Your task to perform on an android device: change the clock display to show seconds Image 0: 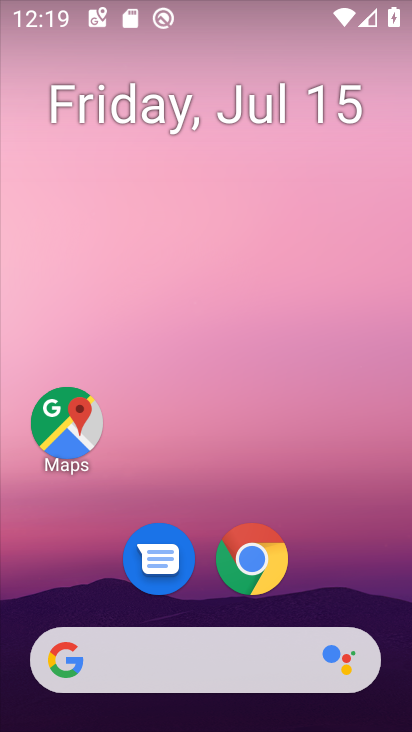
Step 0: drag from (347, 564) to (384, 161)
Your task to perform on an android device: change the clock display to show seconds Image 1: 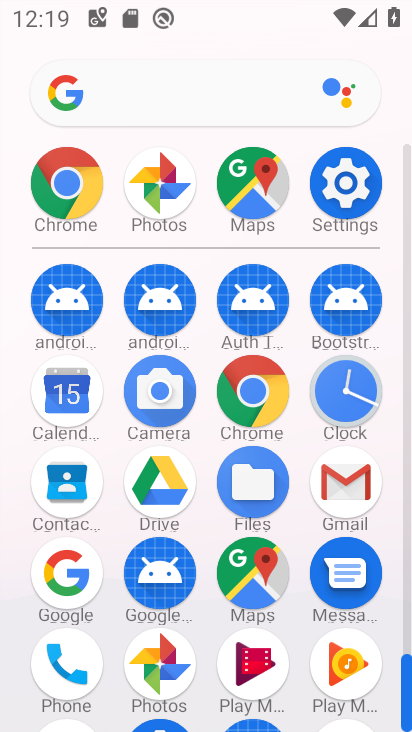
Step 1: click (344, 398)
Your task to perform on an android device: change the clock display to show seconds Image 2: 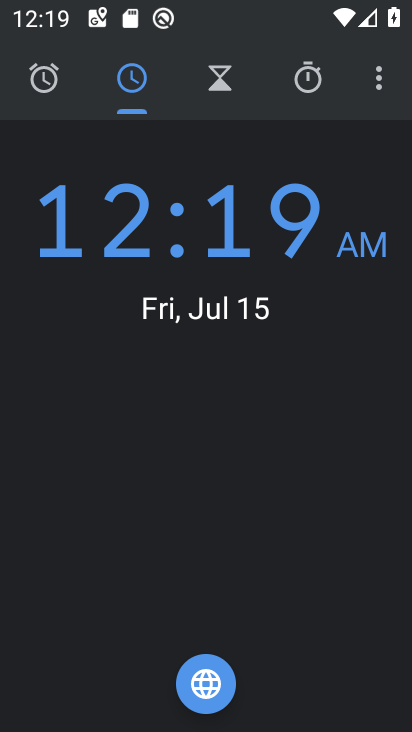
Step 2: click (378, 92)
Your task to perform on an android device: change the clock display to show seconds Image 3: 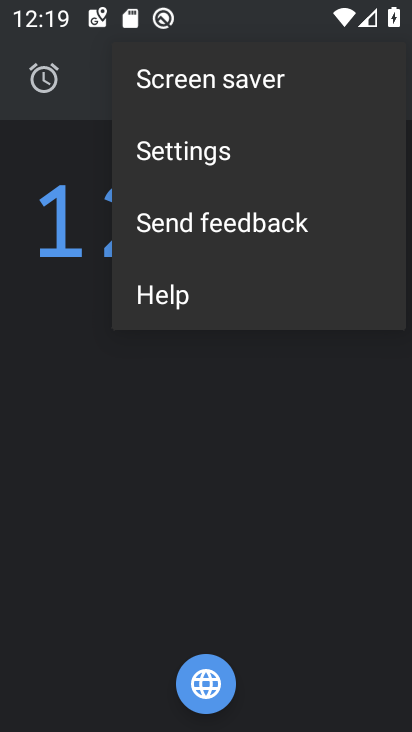
Step 3: click (302, 156)
Your task to perform on an android device: change the clock display to show seconds Image 4: 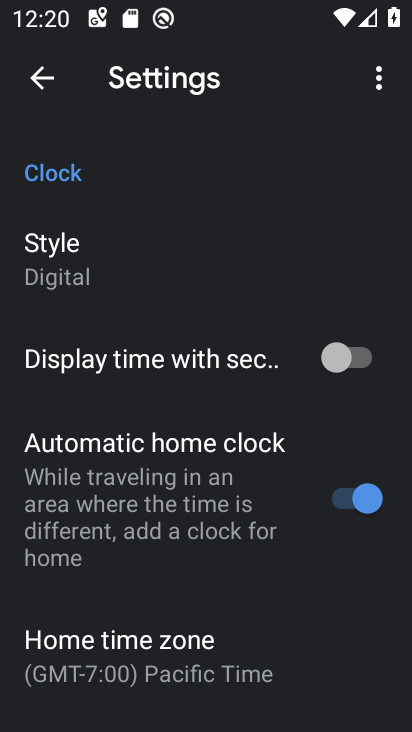
Step 4: drag from (292, 602) to (299, 525)
Your task to perform on an android device: change the clock display to show seconds Image 5: 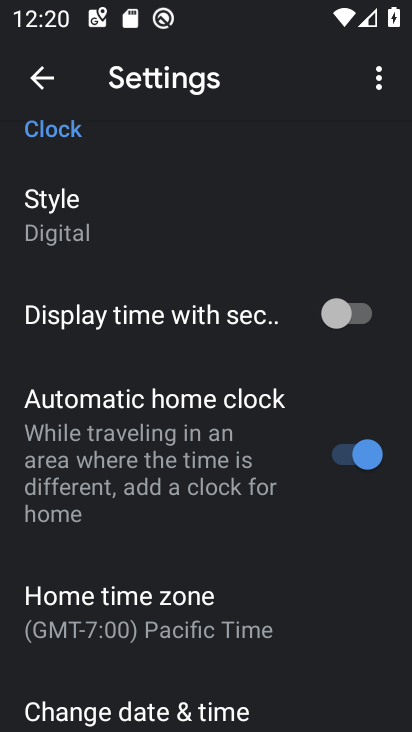
Step 5: drag from (300, 554) to (299, 452)
Your task to perform on an android device: change the clock display to show seconds Image 6: 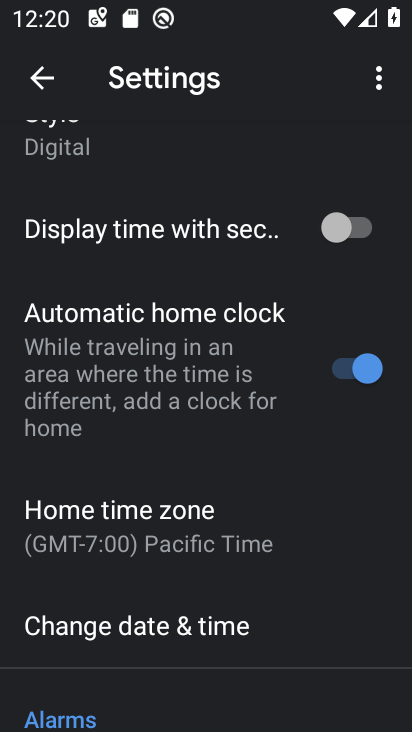
Step 6: drag from (352, 567) to (358, 469)
Your task to perform on an android device: change the clock display to show seconds Image 7: 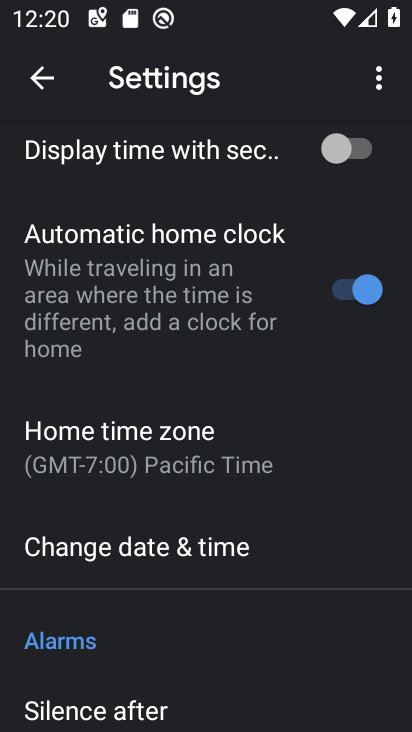
Step 7: click (333, 161)
Your task to perform on an android device: change the clock display to show seconds Image 8: 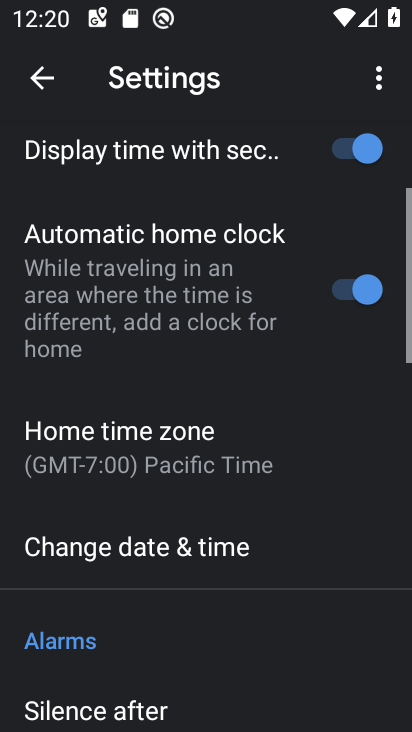
Step 8: task complete